Your task to perform on an android device: turn on translation in the chrome app Image 0: 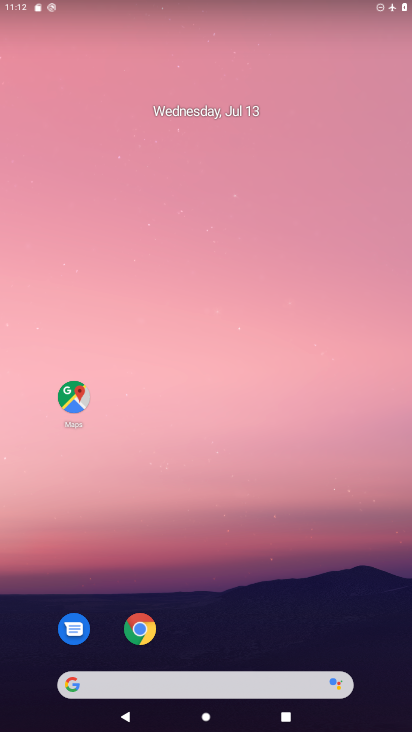
Step 0: click (133, 627)
Your task to perform on an android device: turn on translation in the chrome app Image 1: 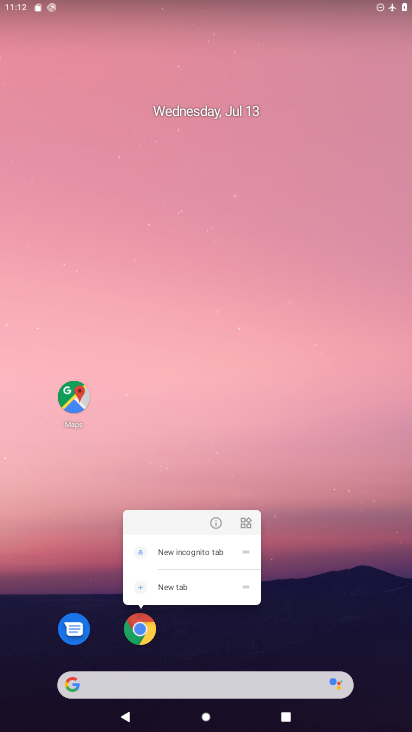
Step 1: click (149, 624)
Your task to perform on an android device: turn on translation in the chrome app Image 2: 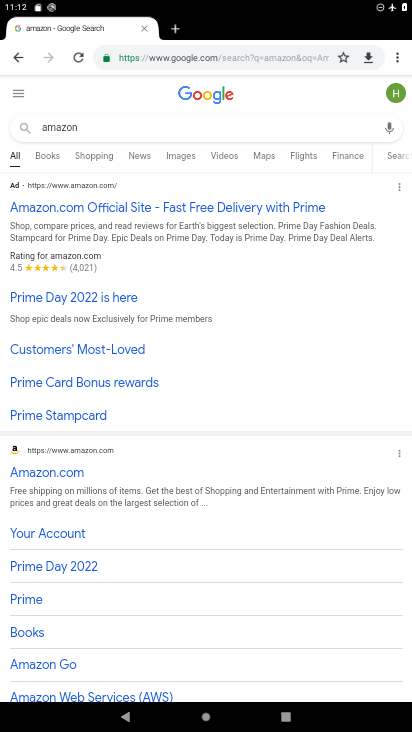
Step 2: click (398, 51)
Your task to perform on an android device: turn on translation in the chrome app Image 3: 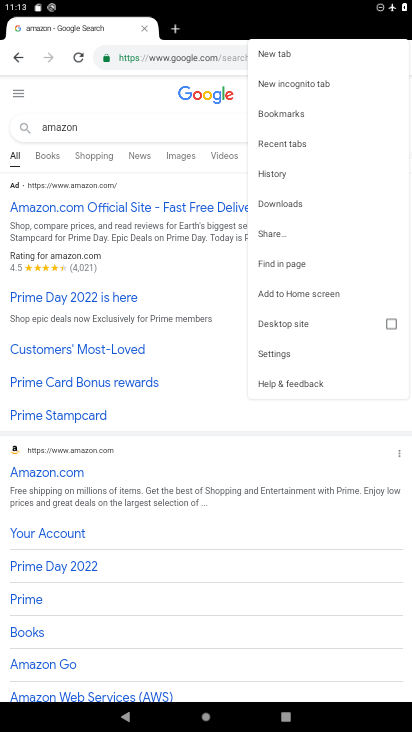
Step 3: click (280, 348)
Your task to perform on an android device: turn on translation in the chrome app Image 4: 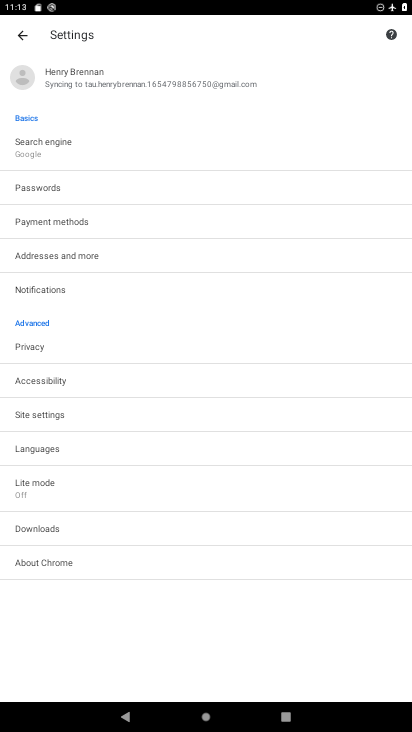
Step 4: click (81, 448)
Your task to perform on an android device: turn on translation in the chrome app Image 5: 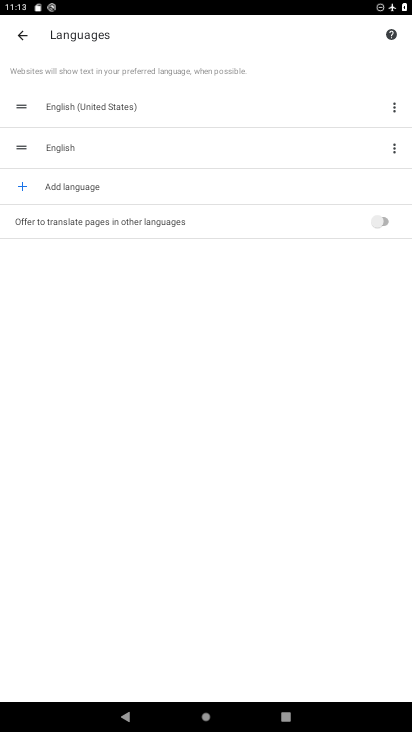
Step 5: click (388, 225)
Your task to perform on an android device: turn on translation in the chrome app Image 6: 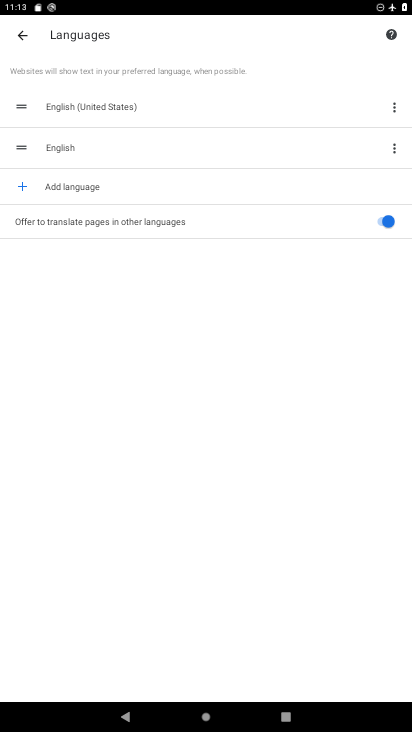
Step 6: task complete